Your task to perform on an android device: change the clock display to analog Image 0: 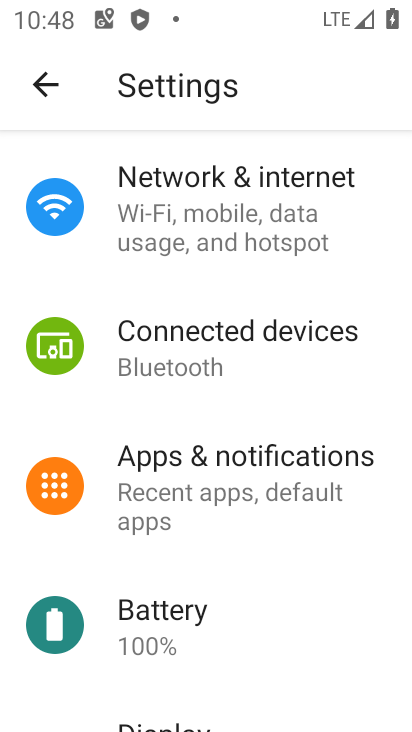
Step 0: press home button
Your task to perform on an android device: change the clock display to analog Image 1: 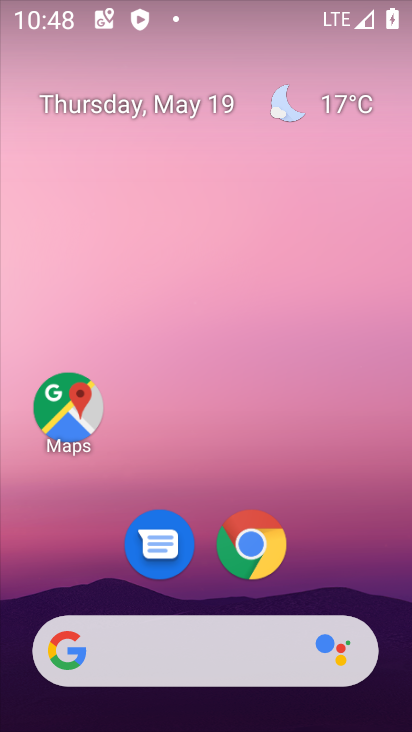
Step 1: drag from (258, 708) to (254, 15)
Your task to perform on an android device: change the clock display to analog Image 2: 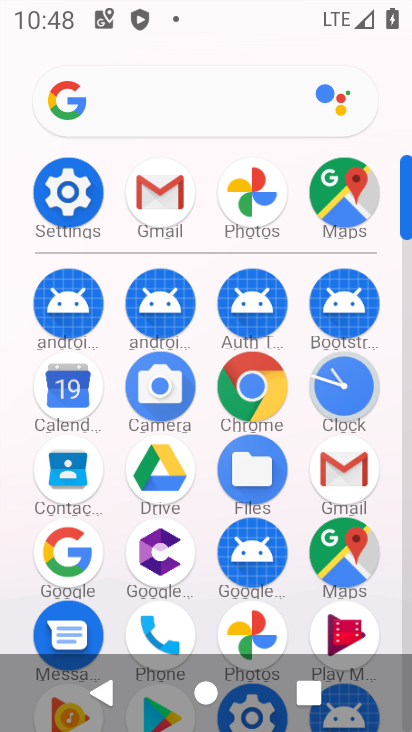
Step 2: click (342, 375)
Your task to perform on an android device: change the clock display to analog Image 3: 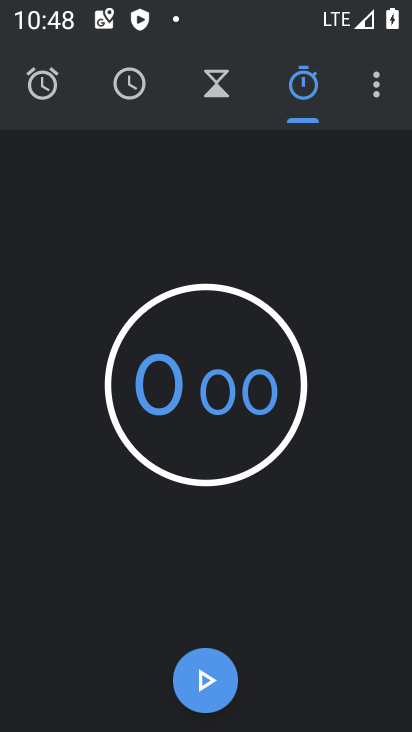
Step 3: click (373, 78)
Your task to perform on an android device: change the clock display to analog Image 4: 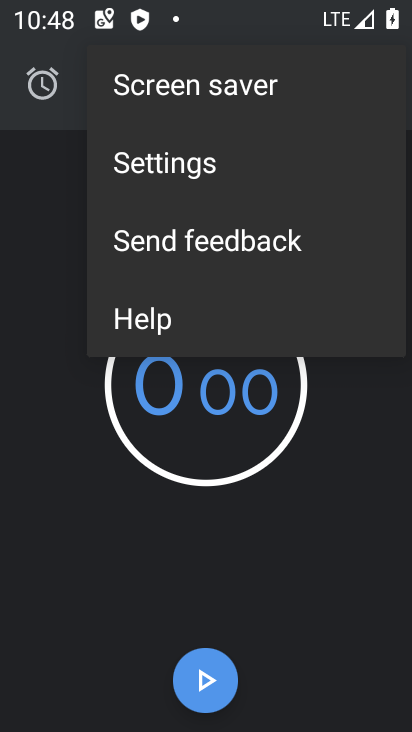
Step 4: click (234, 177)
Your task to perform on an android device: change the clock display to analog Image 5: 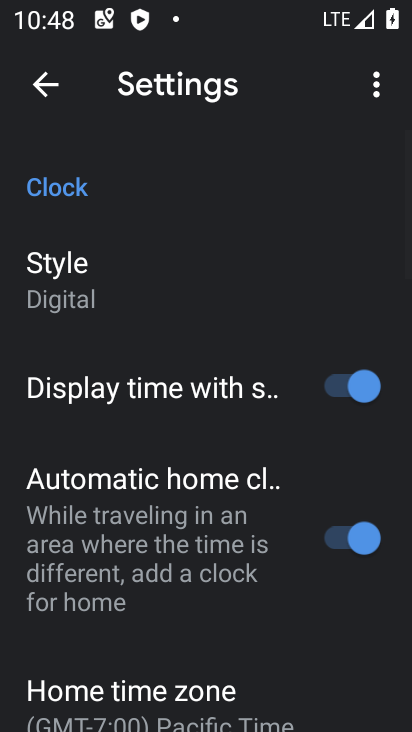
Step 5: click (170, 283)
Your task to perform on an android device: change the clock display to analog Image 6: 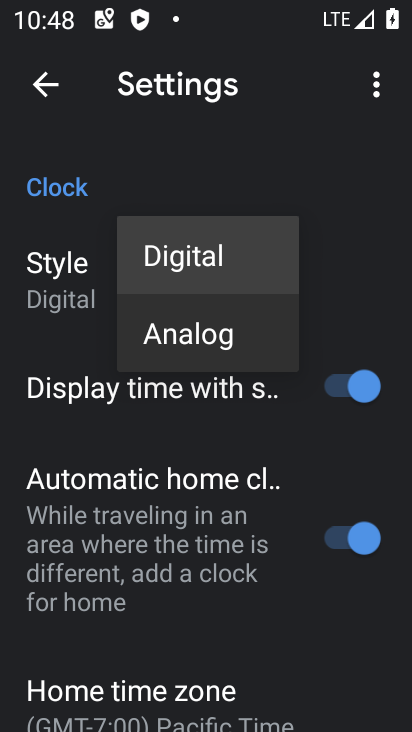
Step 6: click (229, 341)
Your task to perform on an android device: change the clock display to analog Image 7: 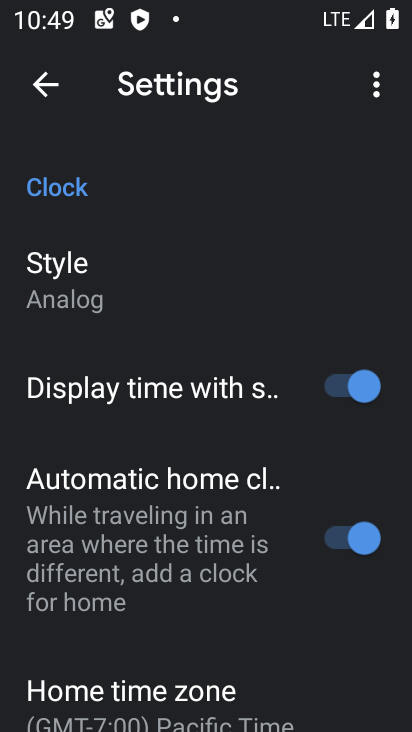
Step 7: task complete